Your task to perform on an android device: Clear the shopping cart on target.com. Image 0: 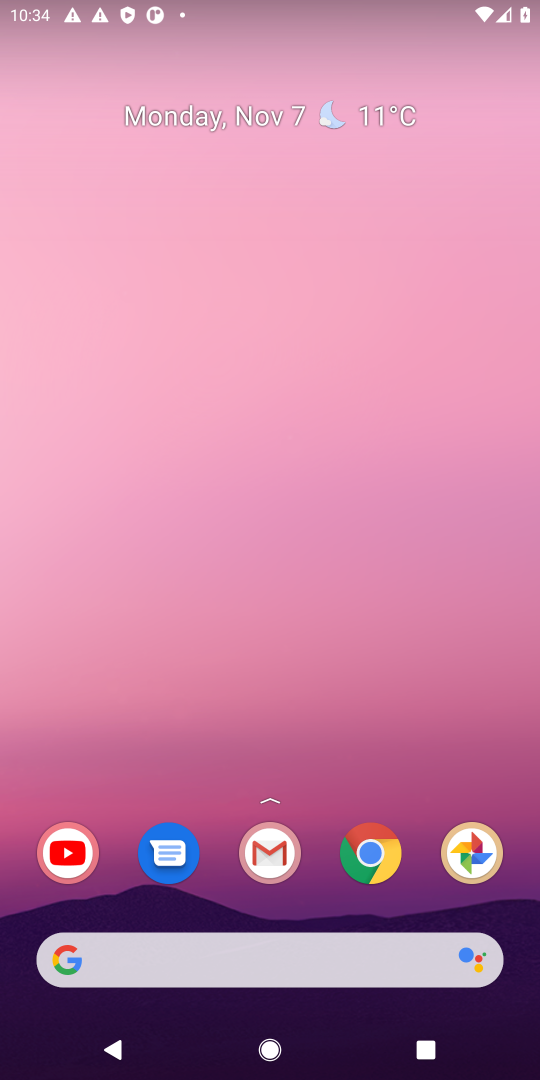
Step 0: click (248, 977)
Your task to perform on an android device: Clear the shopping cart on target.com. Image 1: 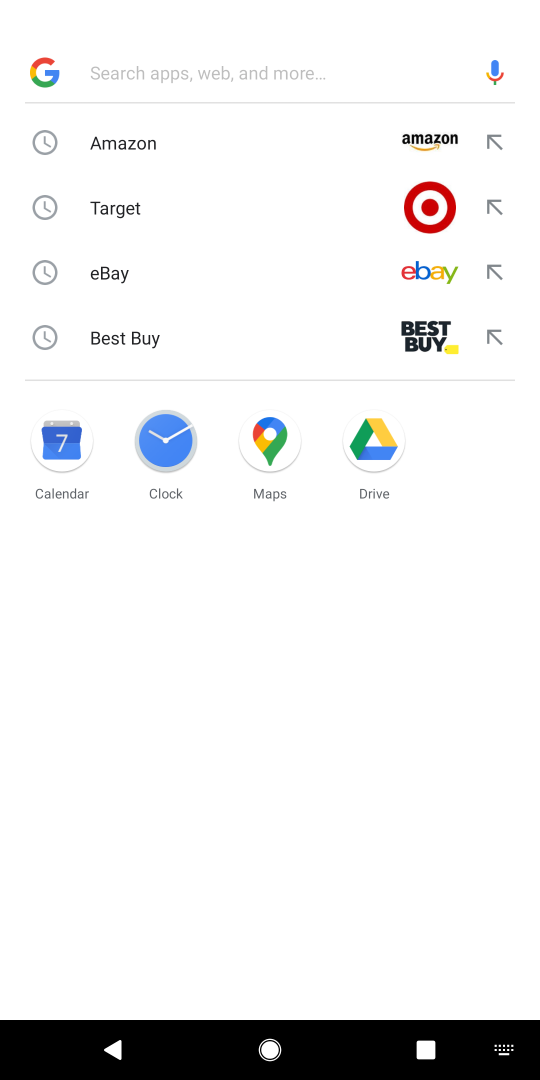
Step 1: click (198, 215)
Your task to perform on an android device: Clear the shopping cart on target.com. Image 2: 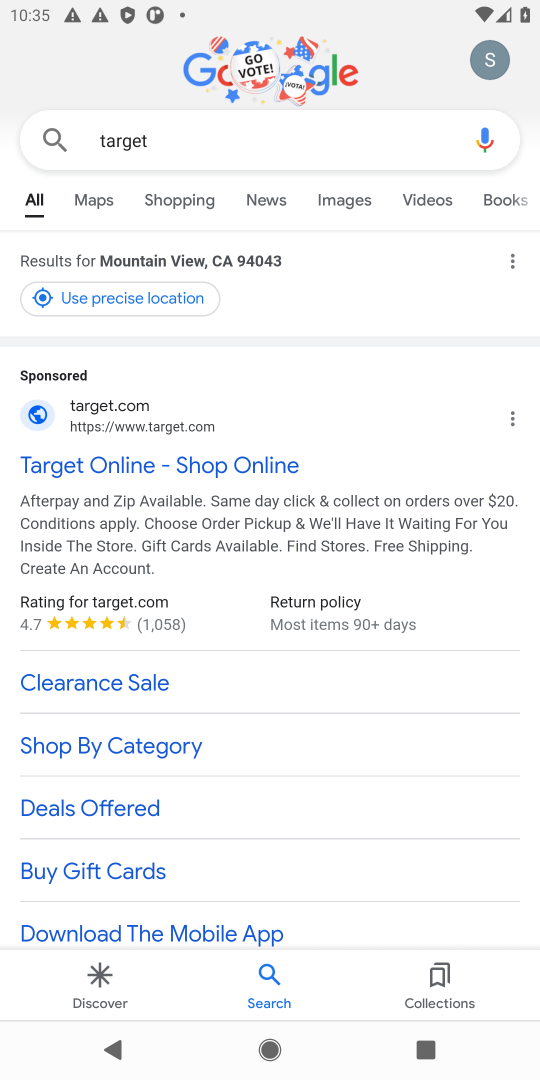
Step 2: click (209, 467)
Your task to perform on an android device: Clear the shopping cart on target.com. Image 3: 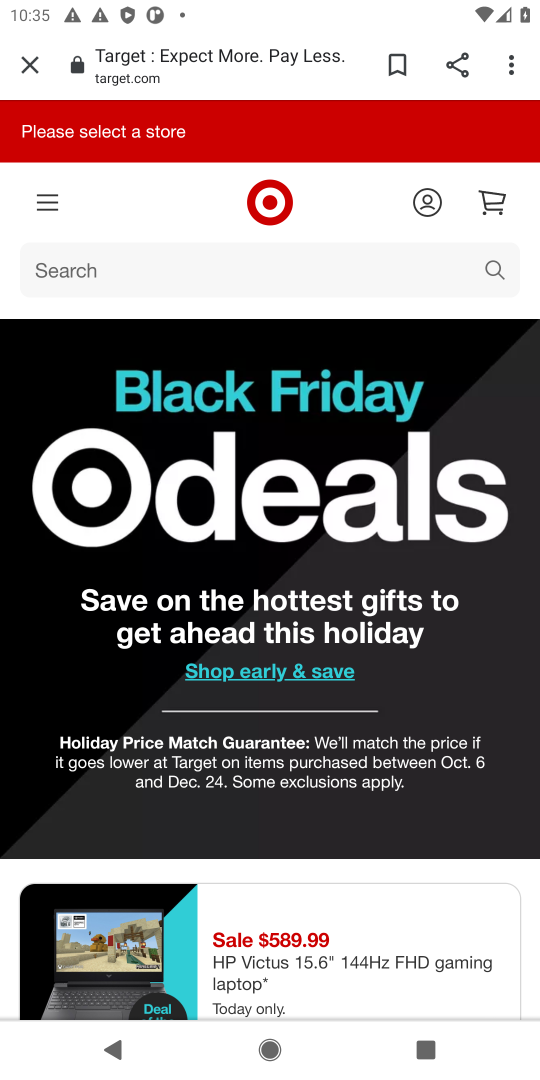
Step 3: task complete